Your task to perform on an android device: turn off improve location accuracy Image 0: 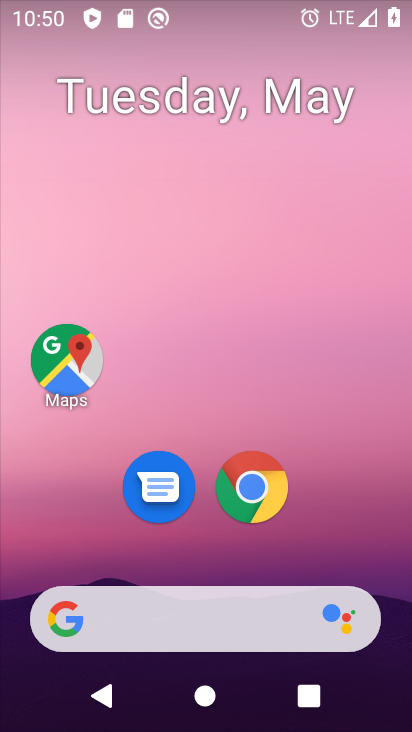
Step 0: drag from (189, 539) to (227, 259)
Your task to perform on an android device: turn off improve location accuracy Image 1: 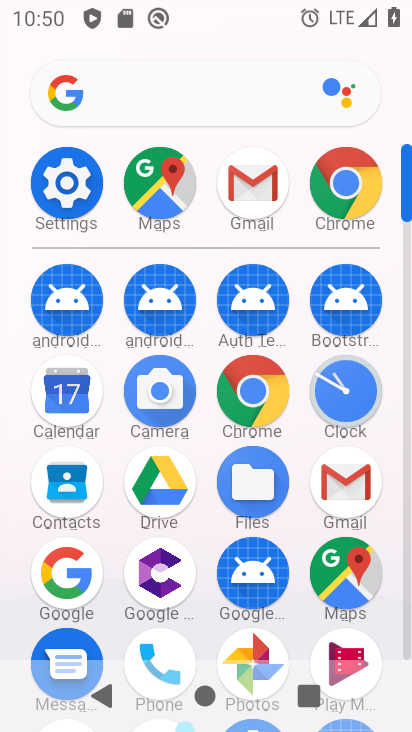
Step 1: click (43, 202)
Your task to perform on an android device: turn off improve location accuracy Image 2: 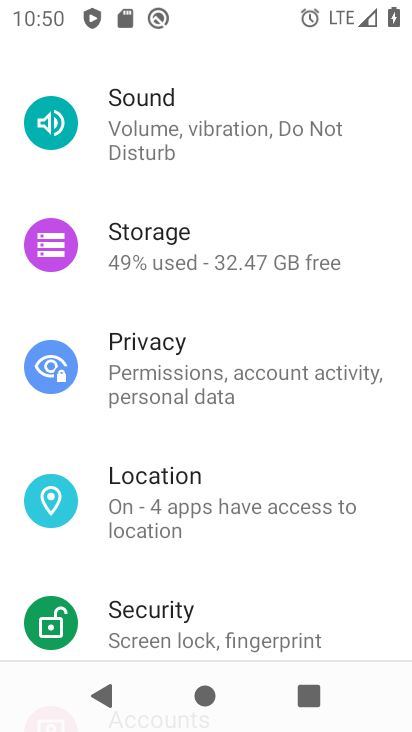
Step 2: drag from (234, 551) to (240, 314)
Your task to perform on an android device: turn off improve location accuracy Image 3: 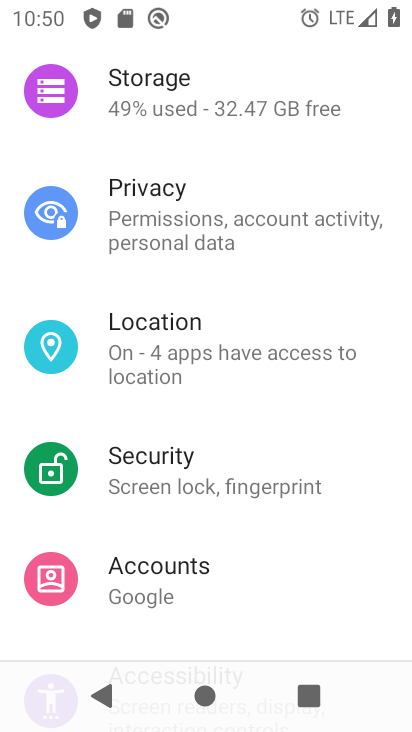
Step 3: click (188, 349)
Your task to perform on an android device: turn off improve location accuracy Image 4: 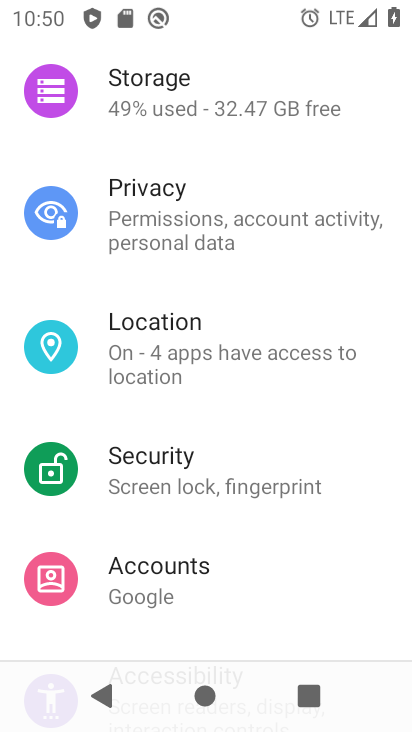
Step 4: click (188, 349)
Your task to perform on an android device: turn off improve location accuracy Image 5: 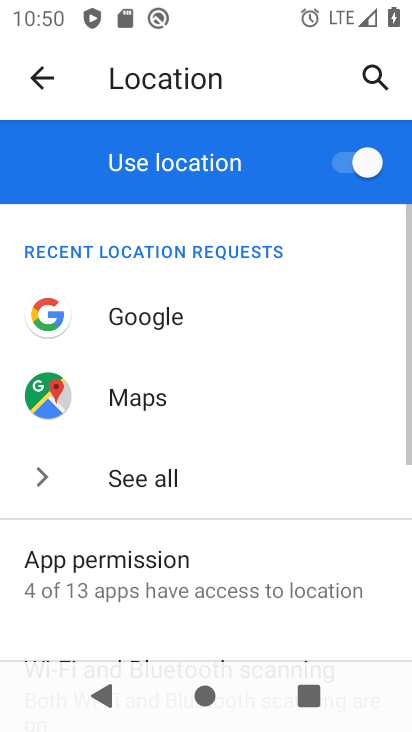
Step 5: drag from (178, 555) to (246, 195)
Your task to perform on an android device: turn off improve location accuracy Image 6: 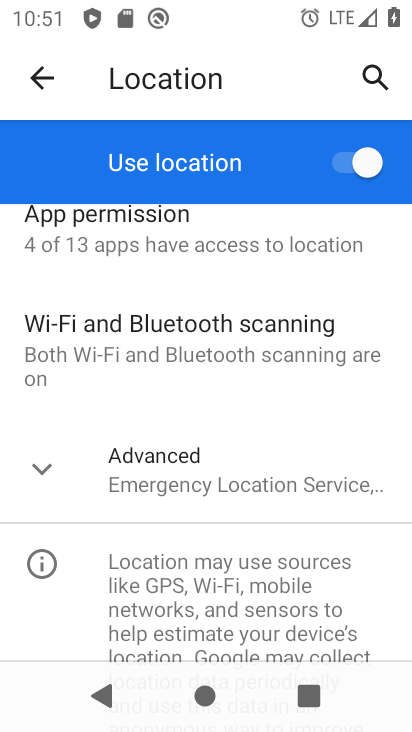
Step 6: drag from (194, 435) to (184, 195)
Your task to perform on an android device: turn off improve location accuracy Image 7: 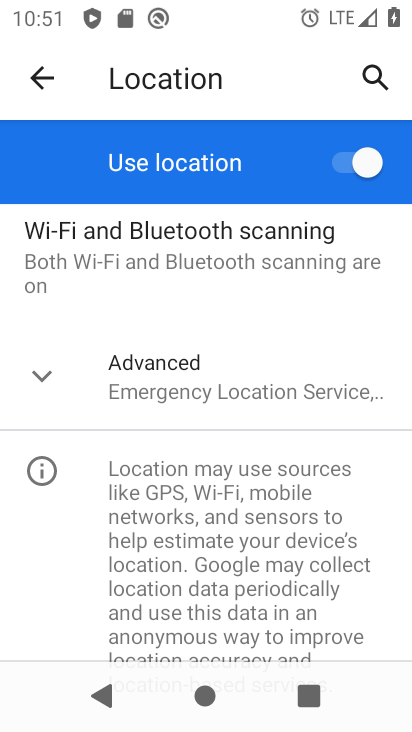
Step 7: click (173, 447)
Your task to perform on an android device: turn off improve location accuracy Image 8: 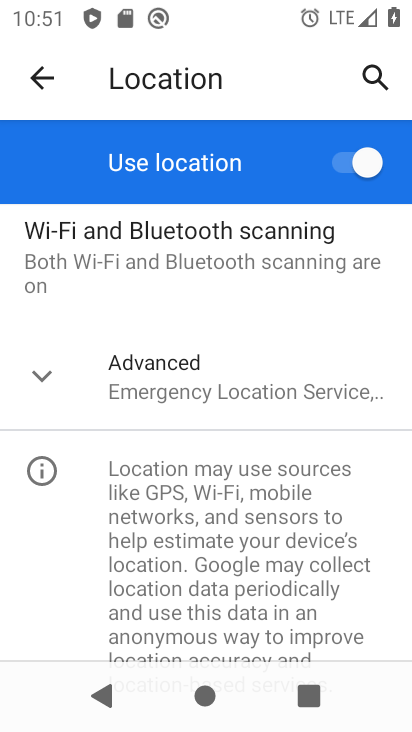
Step 8: click (186, 378)
Your task to perform on an android device: turn off improve location accuracy Image 9: 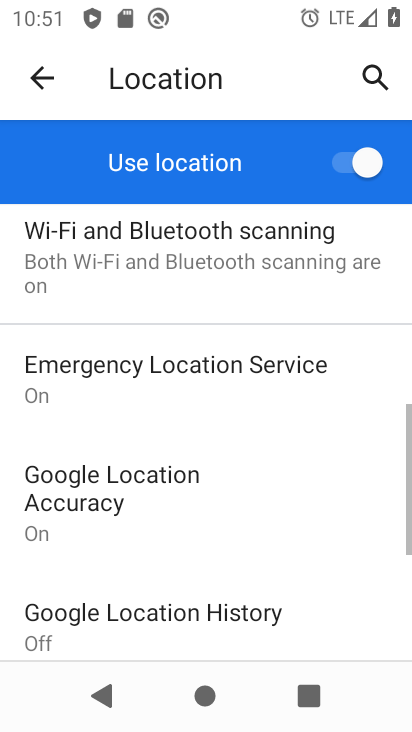
Step 9: drag from (228, 491) to (257, 203)
Your task to perform on an android device: turn off improve location accuracy Image 10: 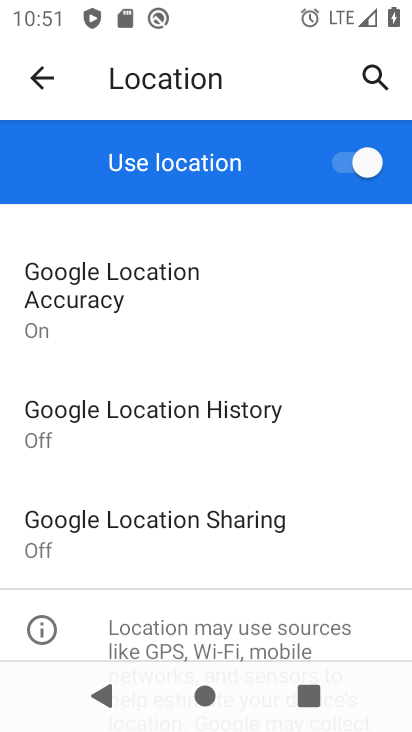
Step 10: click (118, 309)
Your task to perform on an android device: turn off improve location accuracy Image 11: 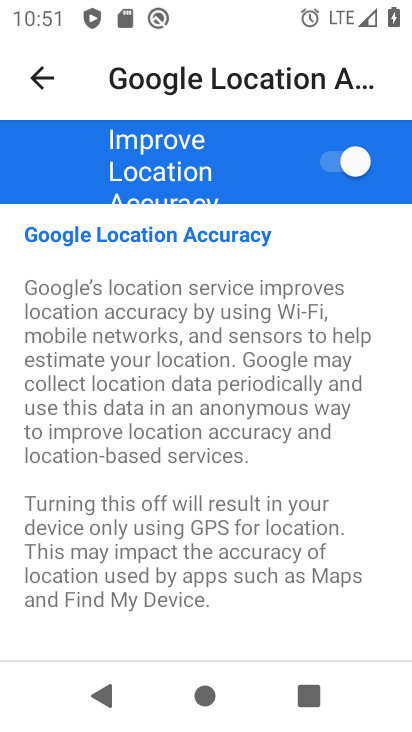
Step 11: click (320, 172)
Your task to perform on an android device: turn off improve location accuracy Image 12: 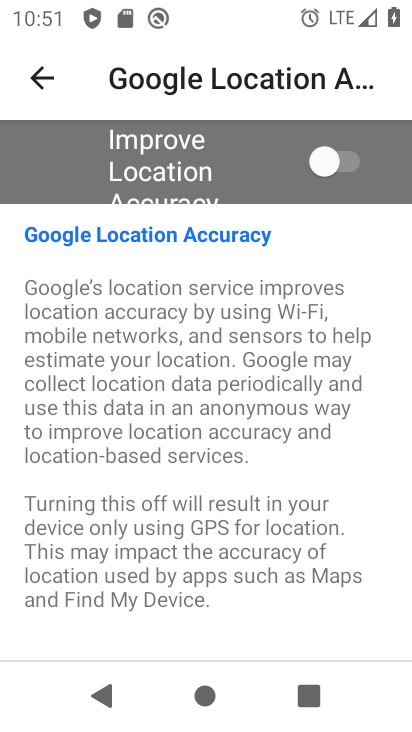
Step 12: task complete